Your task to perform on an android device: Is it going to rain this weekend? Image 0: 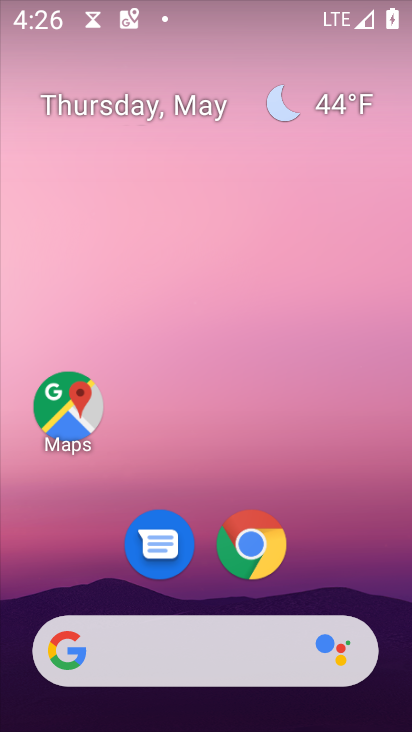
Step 0: drag from (321, 597) to (315, 73)
Your task to perform on an android device: Is it going to rain this weekend? Image 1: 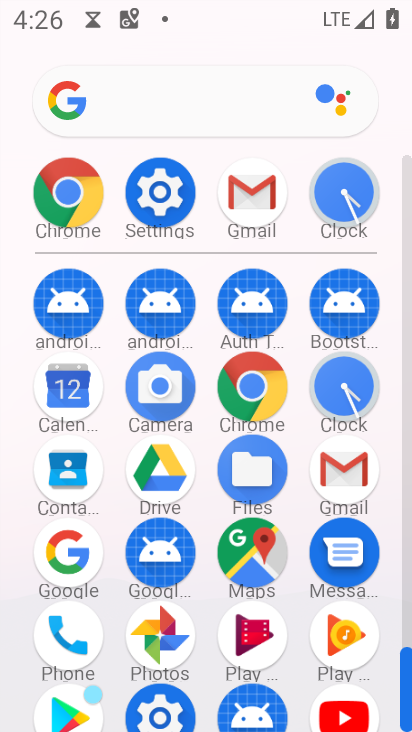
Step 1: click (199, 110)
Your task to perform on an android device: Is it going to rain this weekend? Image 2: 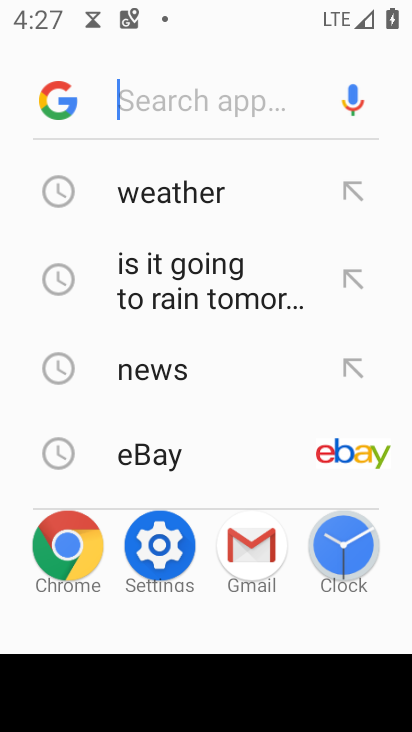
Step 2: type "is it going to rain this weekend"
Your task to perform on an android device: Is it going to rain this weekend? Image 3: 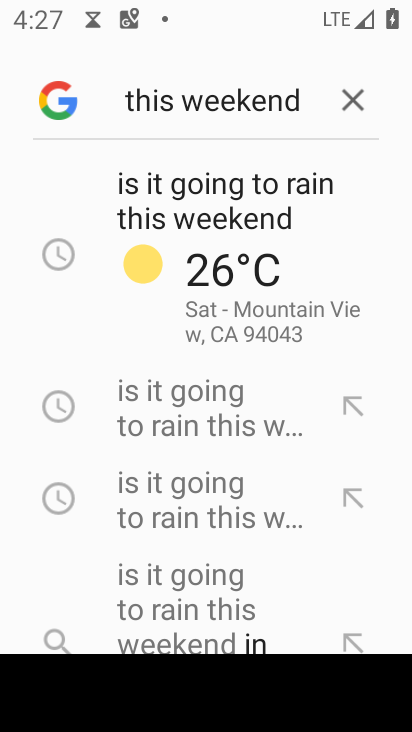
Step 3: click (160, 234)
Your task to perform on an android device: Is it going to rain this weekend? Image 4: 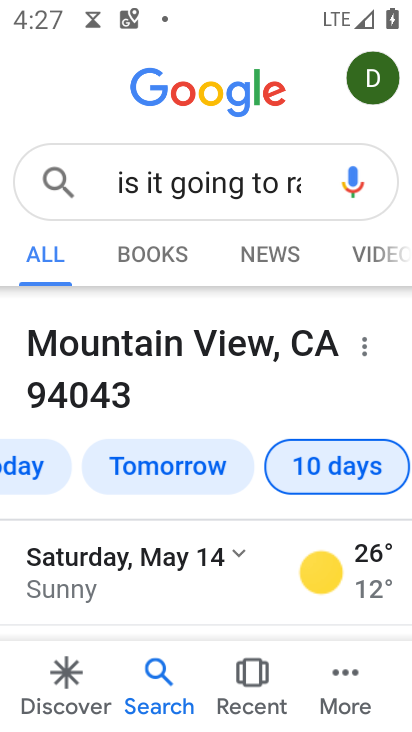
Step 4: task complete